Your task to perform on an android device: Go to wifi settings Image 0: 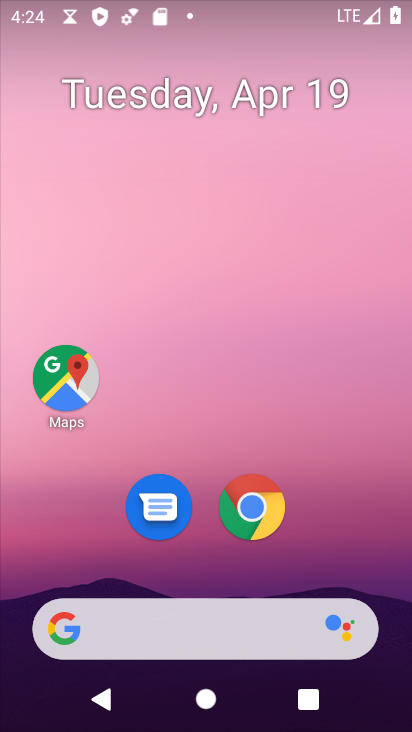
Step 0: drag from (310, 502) to (371, 101)
Your task to perform on an android device: Go to wifi settings Image 1: 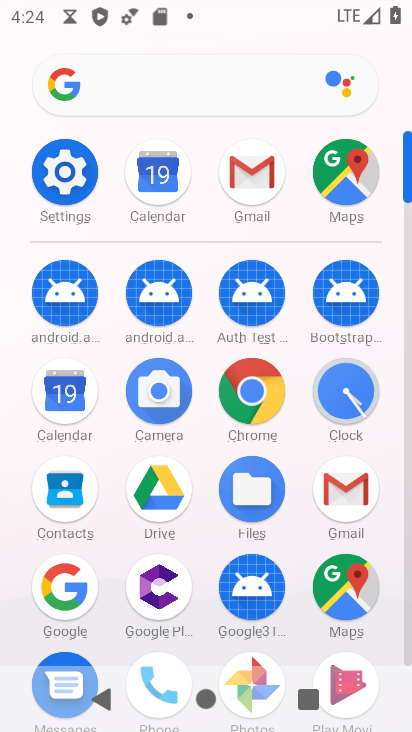
Step 1: click (62, 183)
Your task to perform on an android device: Go to wifi settings Image 2: 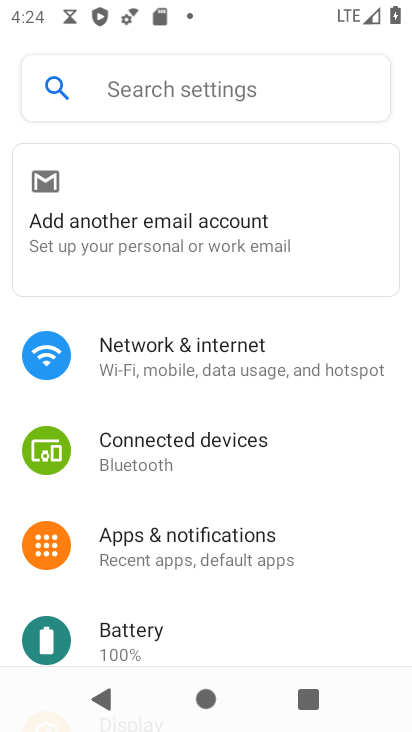
Step 2: click (150, 342)
Your task to perform on an android device: Go to wifi settings Image 3: 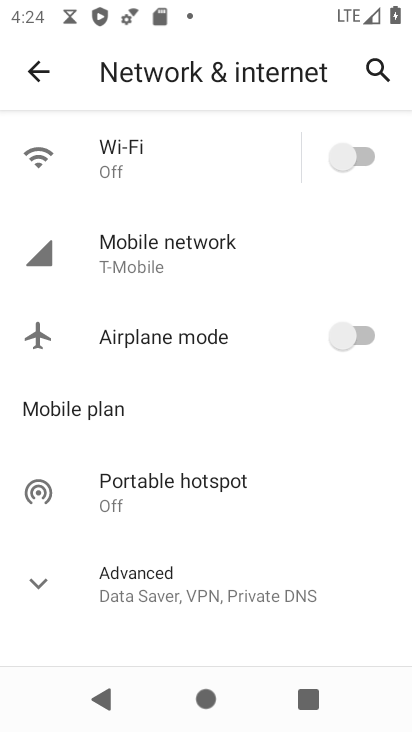
Step 3: click (59, 162)
Your task to perform on an android device: Go to wifi settings Image 4: 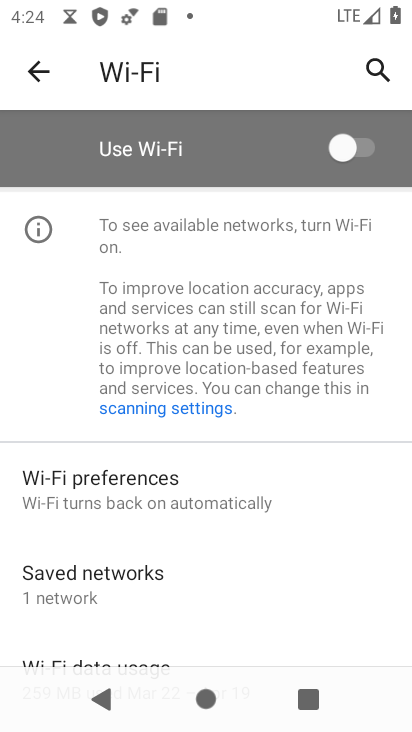
Step 4: task complete